Your task to perform on an android device: turn off location history Image 0: 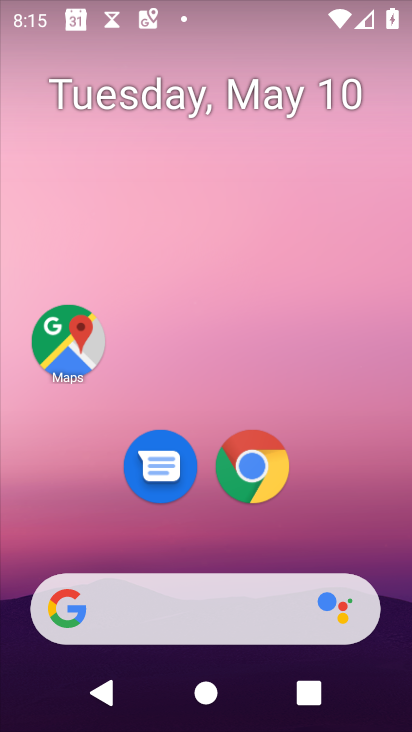
Step 0: drag from (329, 515) to (297, 60)
Your task to perform on an android device: turn off location history Image 1: 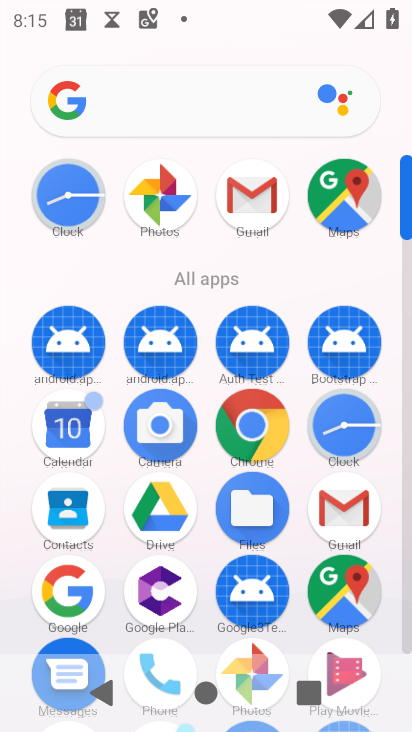
Step 1: drag from (203, 638) to (192, 452)
Your task to perform on an android device: turn off location history Image 2: 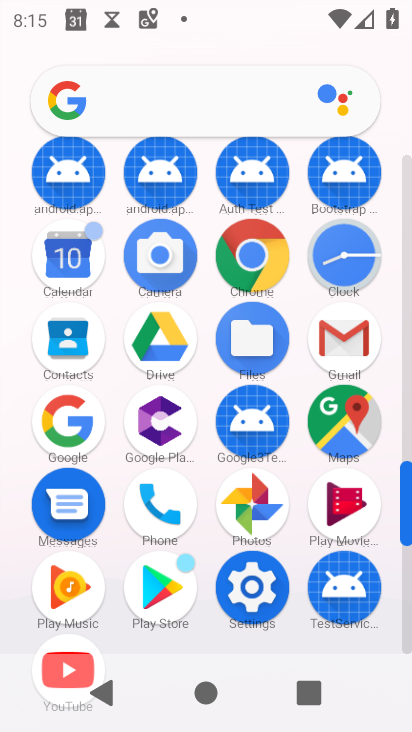
Step 2: click (244, 601)
Your task to perform on an android device: turn off location history Image 3: 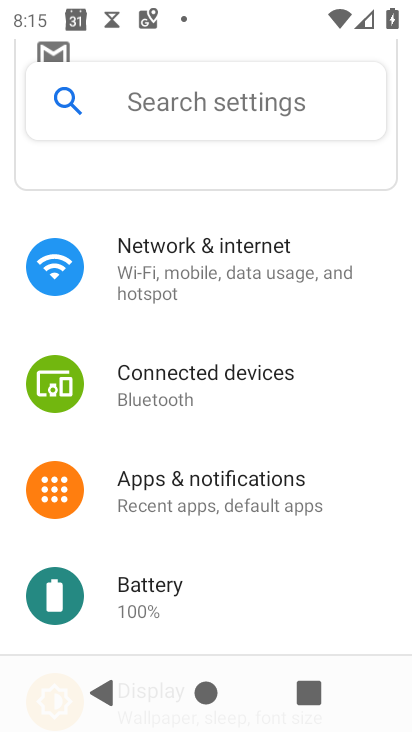
Step 3: drag from (207, 513) to (228, 340)
Your task to perform on an android device: turn off location history Image 4: 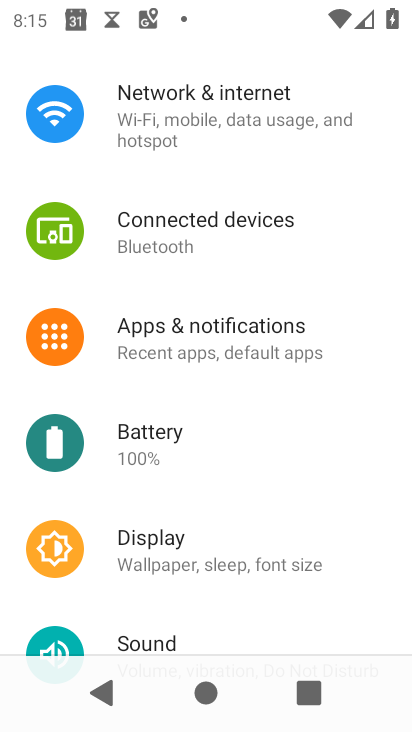
Step 4: drag from (234, 526) to (286, 348)
Your task to perform on an android device: turn off location history Image 5: 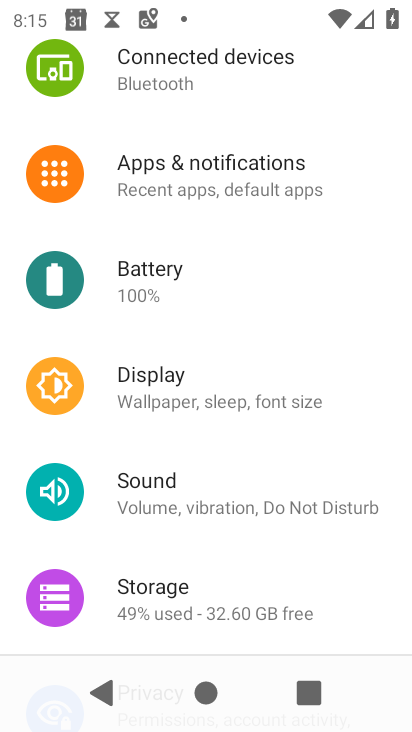
Step 5: drag from (221, 568) to (237, 434)
Your task to perform on an android device: turn off location history Image 6: 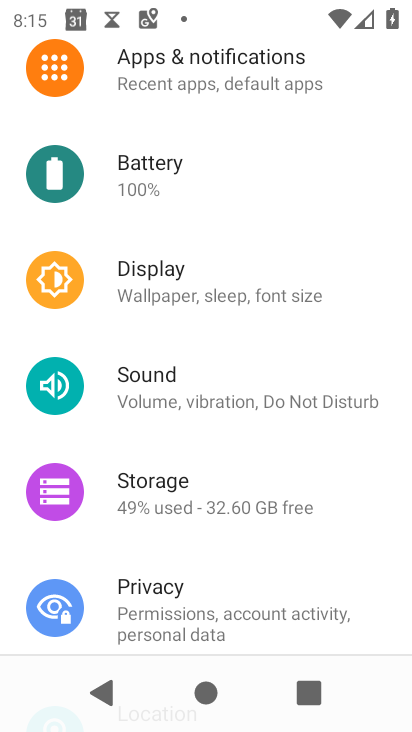
Step 6: drag from (261, 549) to (252, 362)
Your task to perform on an android device: turn off location history Image 7: 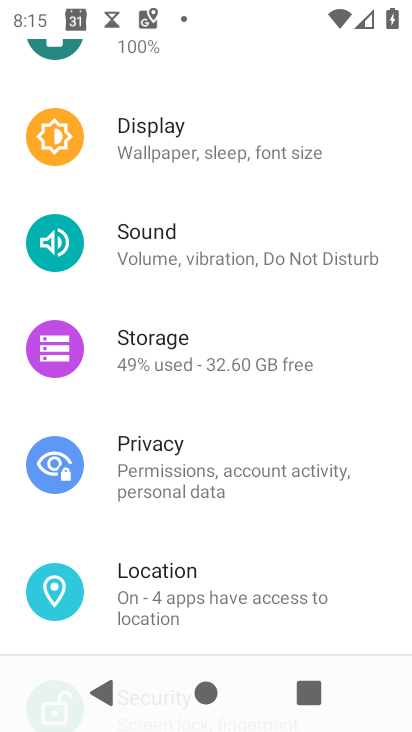
Step 7: click (183, 591)
Your task to perform on an android device: turn off location history Image 8: 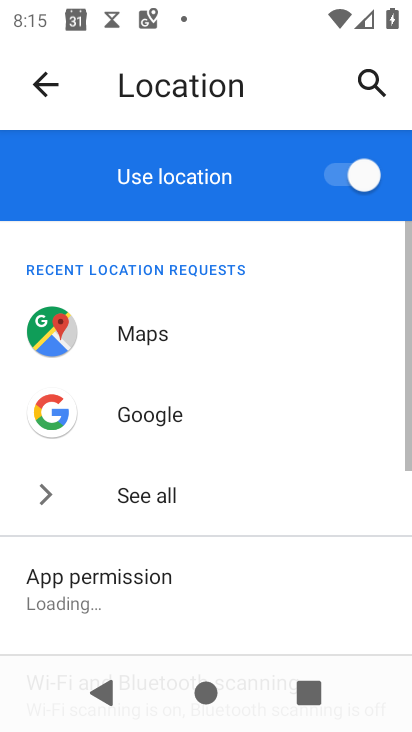
Step 8: drag from (183, 597) to (193, 462)
Your task to perform on an android device: turn off location history Image 9: 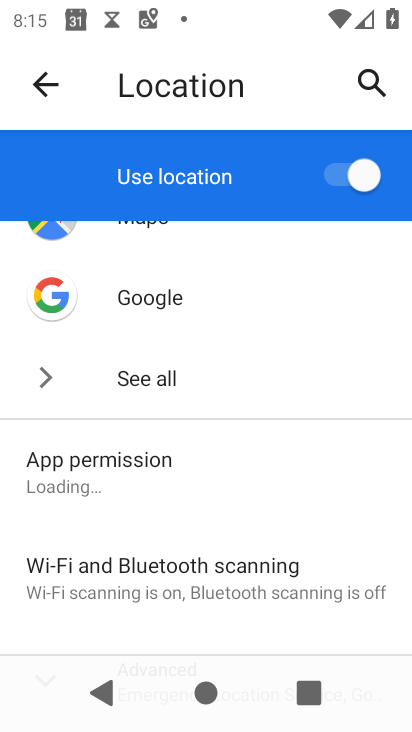
Step 9: drag from (176, 583) to (174, 485)
Your task to perform on an android device: turn off location history Image 10: 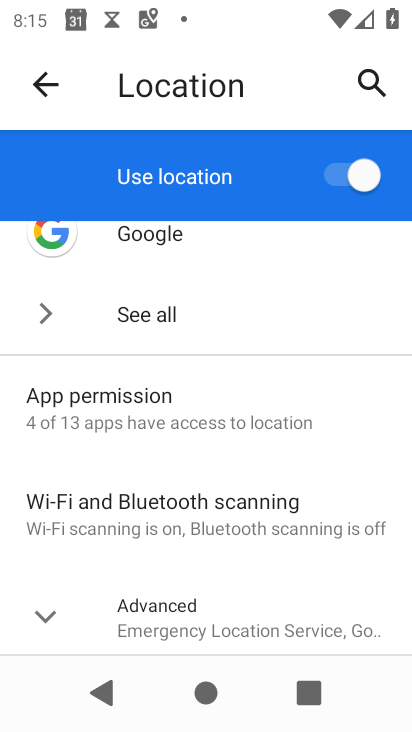
Step 10: click (174, 607)
Your task to perform on an android device: turn off location history Image 11: 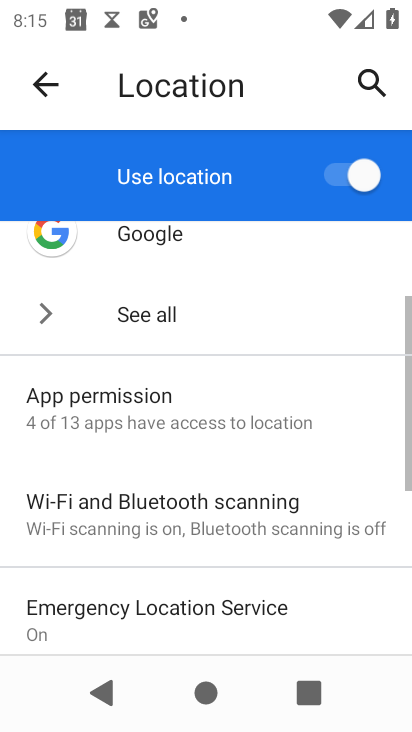
Step 11: drag from (172, 606) to (169, 498)
Your task to perform on an android device: turn off location history Image 12: 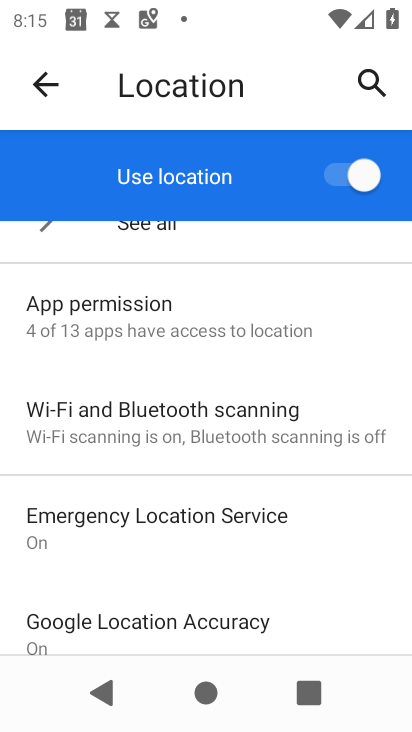
Step 12: drag from (164, 599) to (177, 479)
Your task to perform on an android device: turn off location history Image 13: 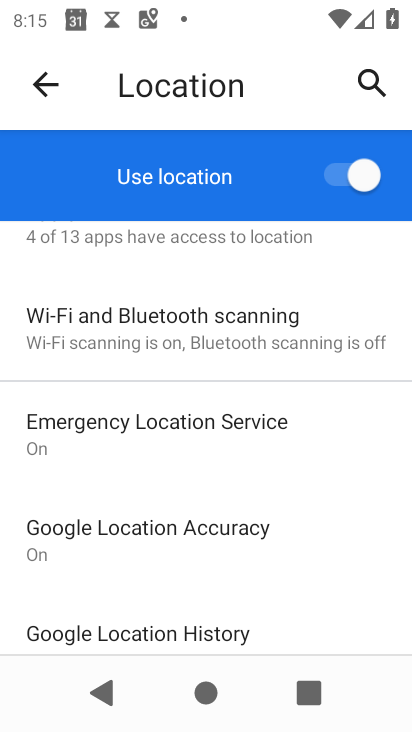
Step 13: click (187, 632)
Your task to perform on an android device: turn off location history Image 14: 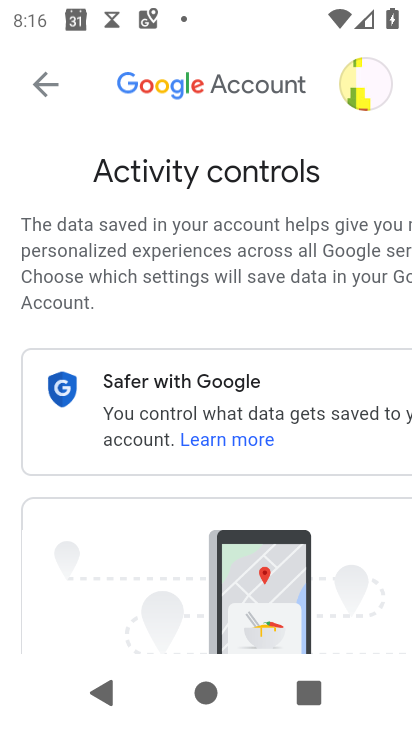
Step 14: drag from (181, 547) to (133, 168)
Your task to perform on an android device: turn off location history Image 15: 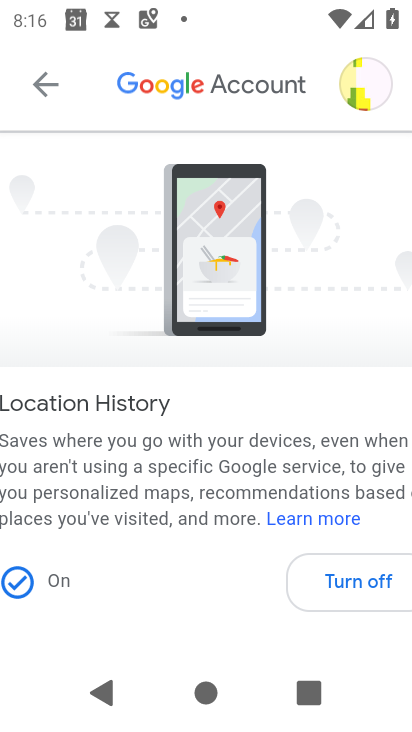
Step 15: click (373, 582)
Your task to perform on an android device: turn off location history Image 16: 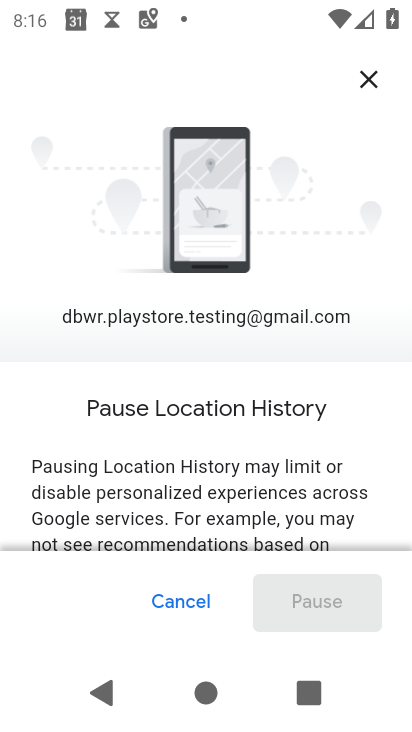
Step 16: drag from (220, 441) to (157, 30)
Your task to perform on an android device: turn off location history Image 17: 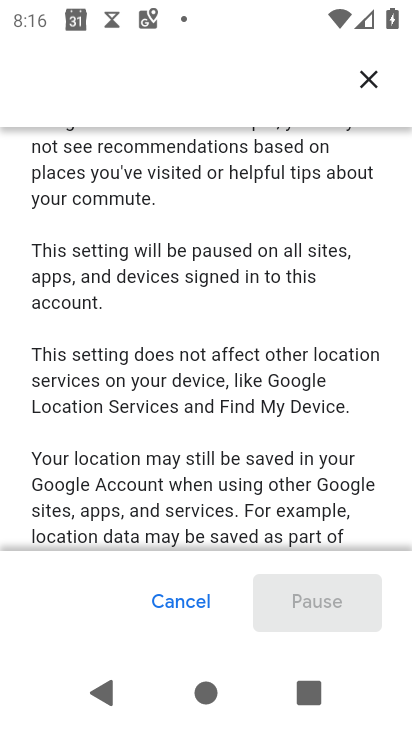
Step 17: drag from (214, 476) to (203, 76)
Your task to perform on an android device: turn off location history Image 18: 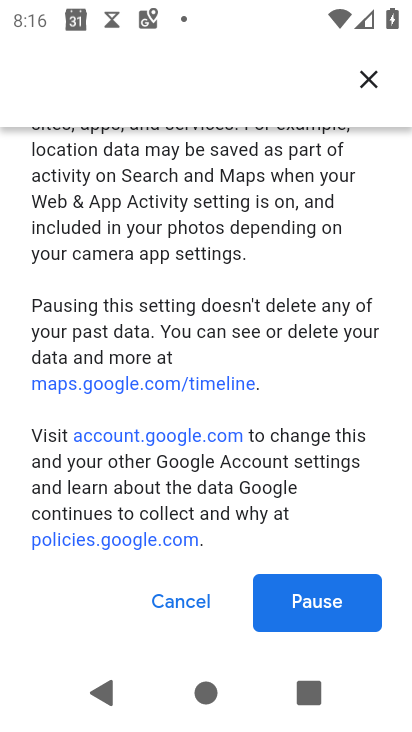
Step 18: click (301, 611)
Your task to perform on an android device: turn off location history Image 19: 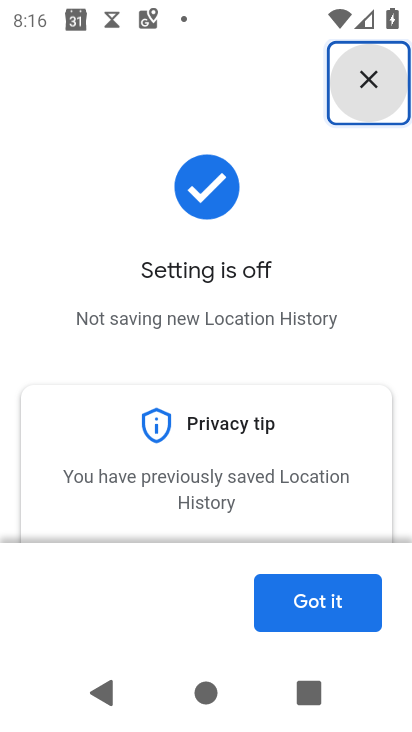
Step 19: click (303, 605)
Your task to perform on an android device: turn off location history Image 20: 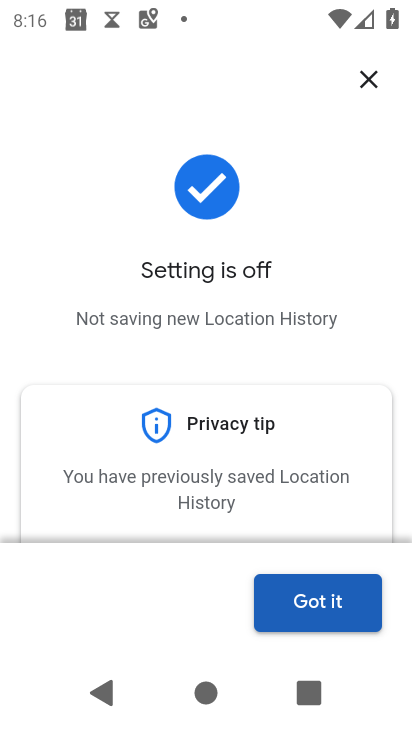
Step 20: task complete